Your task to perform on an android device: Search for the best rated 4K TV on Best Buy. Image 0: 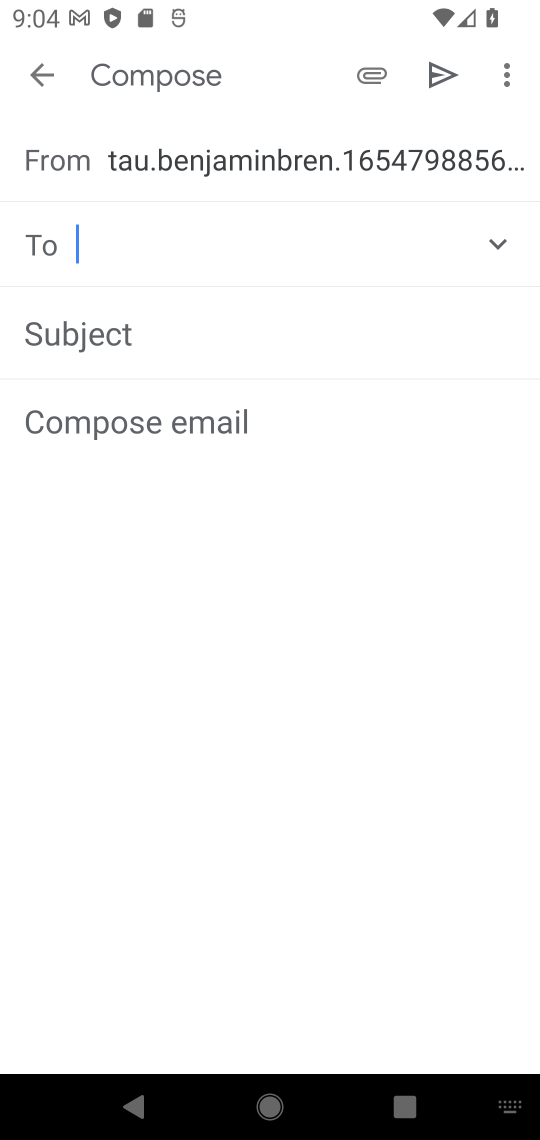
Step 0: press home button
Your task to perform on an android device: Search for the best rated 4K TV on Best Buy. Image 1: 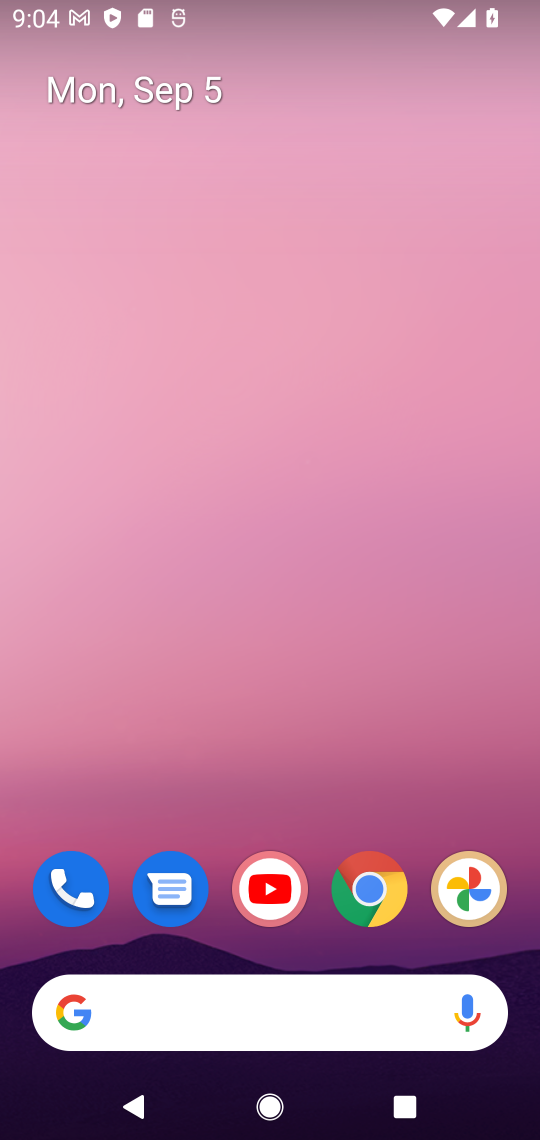
Step 1: drag from (287, 748) to (236, 87)
Your task to perform on an android device: Search for the best rated 4K TV on Best Buy. Image 2: 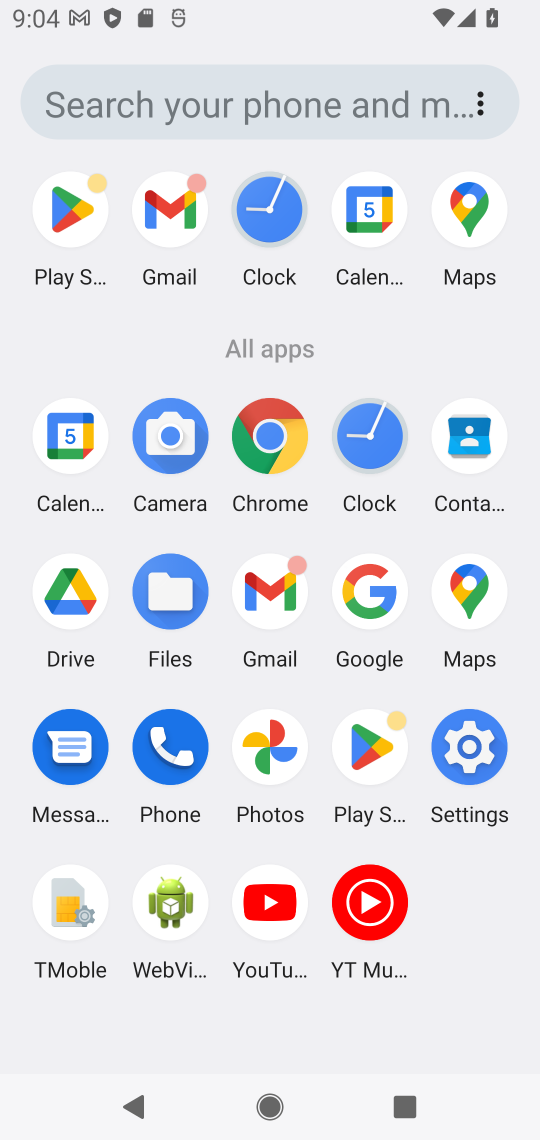
Step 2: click (354, 586)
Your task to perform on an android device: Search for the best rated 4K TV on Best Buy. Image 3: 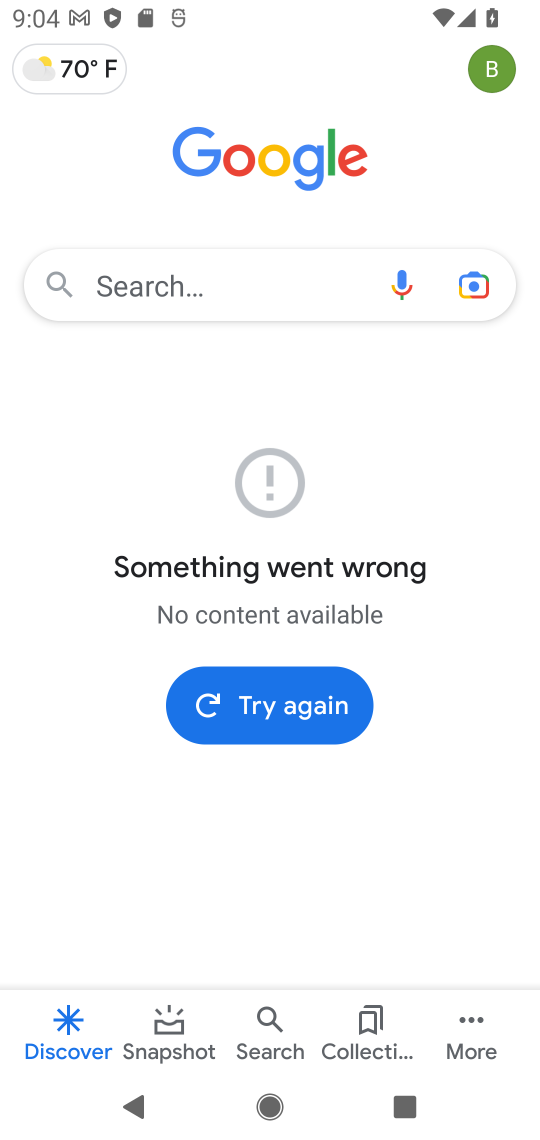
Step 3: press home button
Your task to perform on an android device: Search for the best rated 4K TV on Best Buy. Image 4: 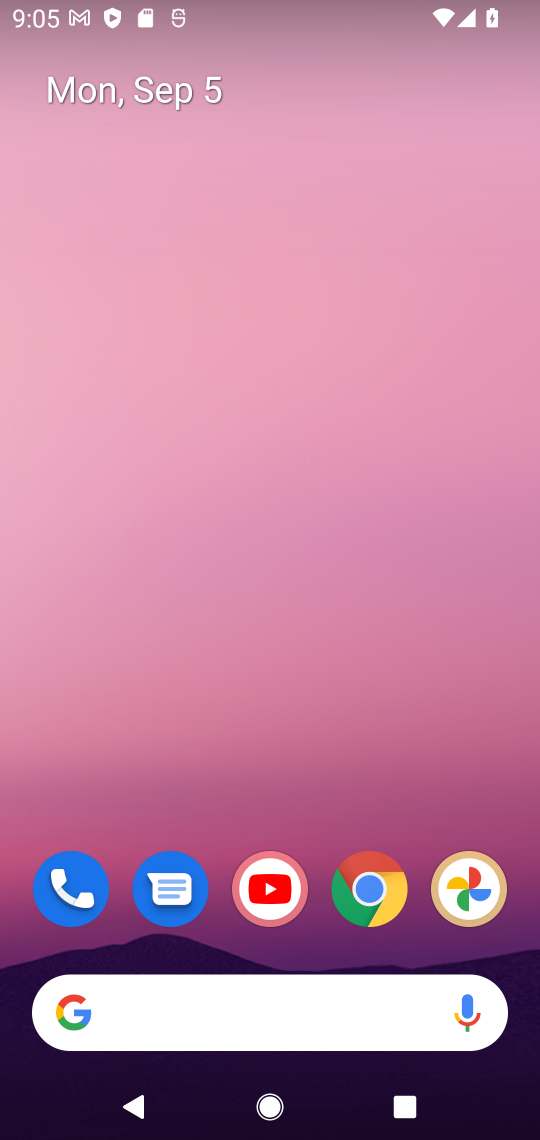
Step 4: click (271, 1005)
Your task to perform on an android device: Search for the best rated 4K TV on Best Buy. Image 5: 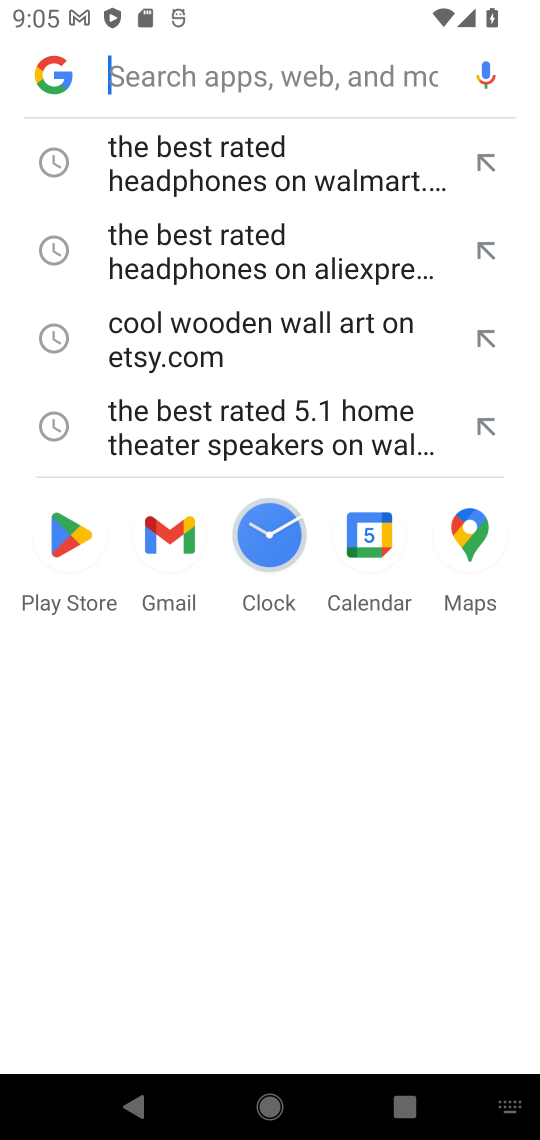
Step 5: type "the best rated 4K TV on Best Buy"
Your task to perform on an android device: Search for the best rated 4K TV on Best Buy. Image 6: 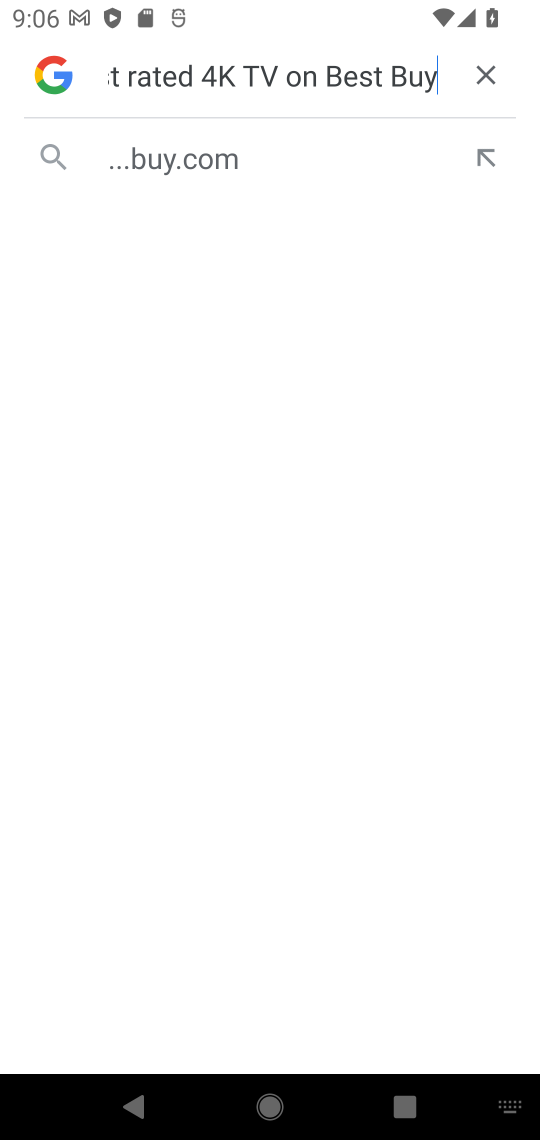
Step 6: click (185, 159)
Your task to perform on an android device: Search for the best rated 4K TV on Best Buy. Image 7: 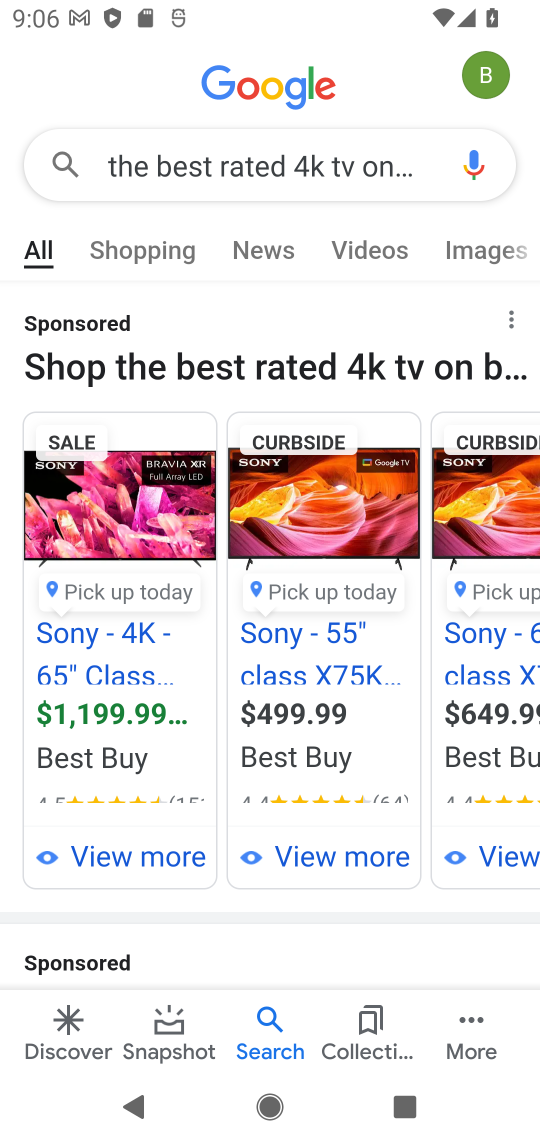
Step 7: click (245, 226)
Your task to perform on an android device: Search for the best rated 4K TV on Best Buy. Image 8: 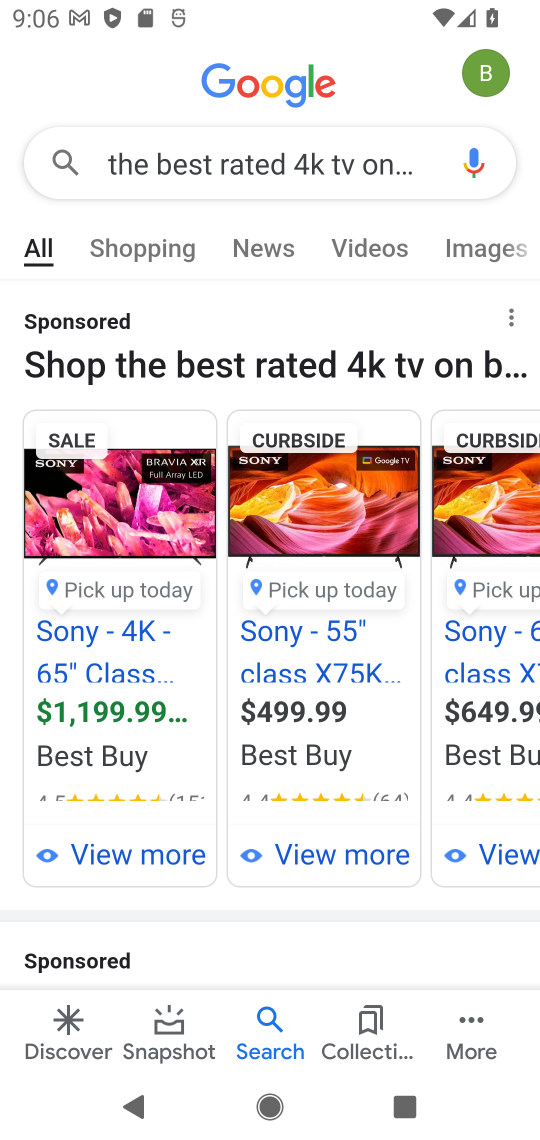
Step 8: task complete